Your task to perform on an android device: Go to Android settings Image 0: 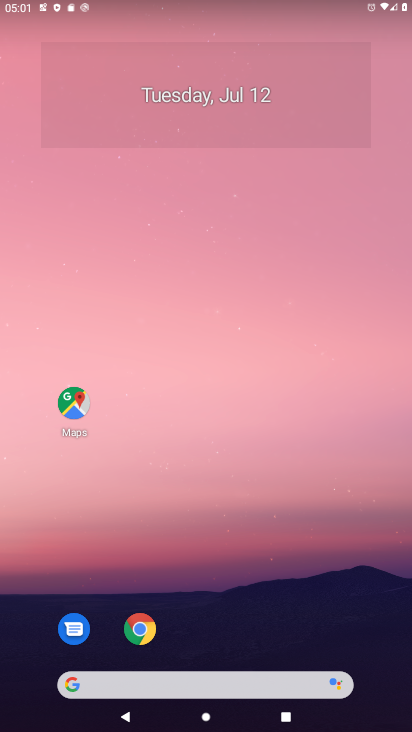
Step 0: press home button
Your task to perform on an android device: Go to Android settings Image 1: 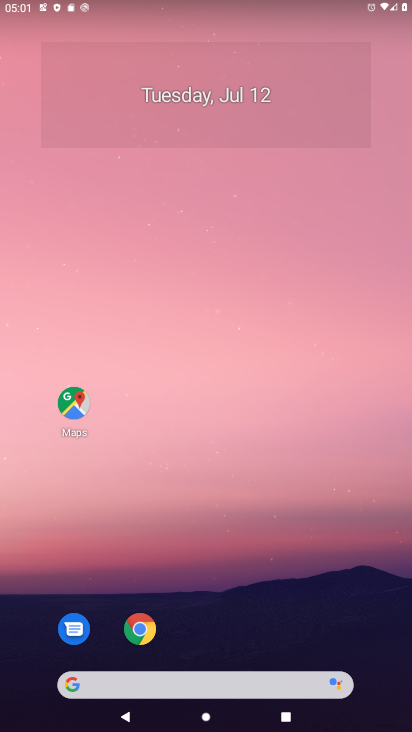
Step 1: drag from (233, 508) to (393, 199)
Your task to perform on an android device: Go to Android settings Image 2: 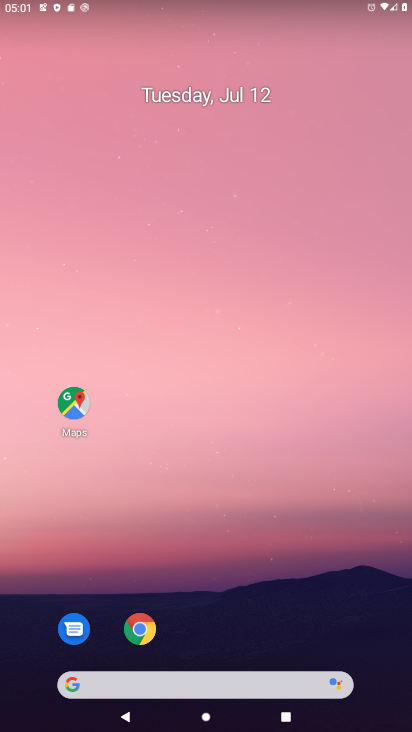
Step 2: click (358, 273)
Your task to perform on an android device: Go to Android settings Image 3: 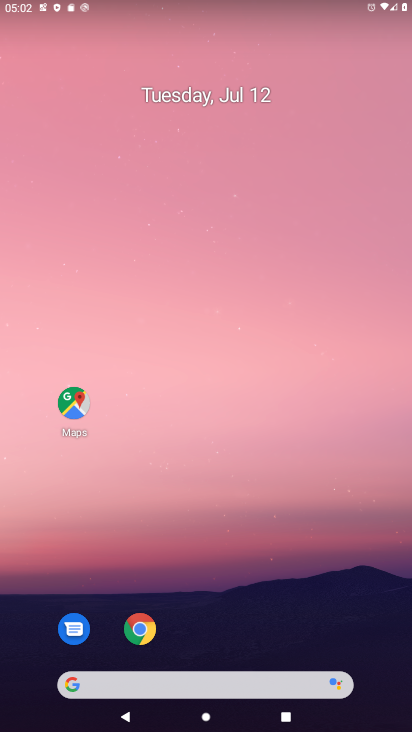
Step 3: drag from (284, 638) to (379, 9)
Your task to perform on an android device: Go to Android settings Image 4: 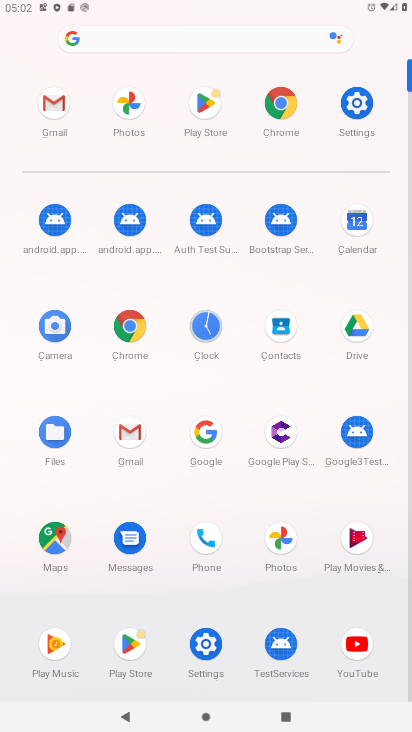
Step 4: click (388, 119)
Your task to perform on an android device: Go to Android settings Image 5: 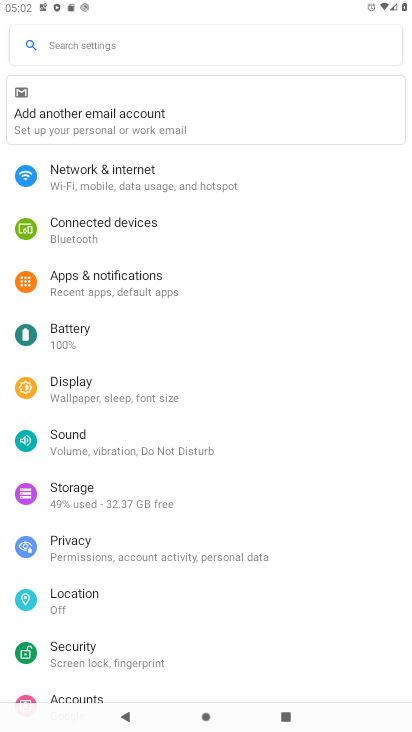
Step 5: task complete